Your task to perform on an android device: delete location history Image 0: 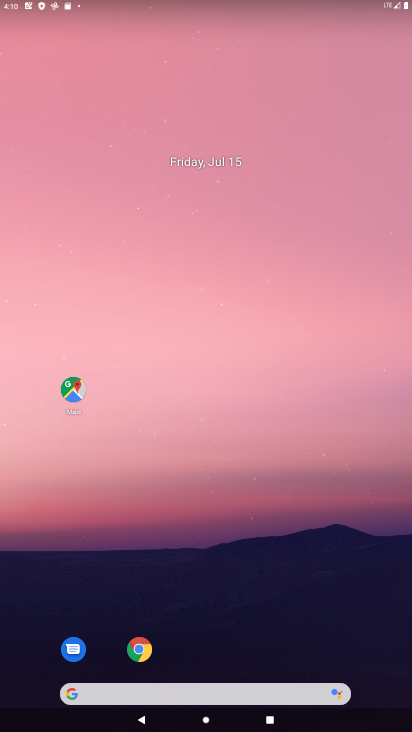
Step 0: drag from (299, 609) to (216, 171)
Your task to perform on an android device: delete location history Image 1: 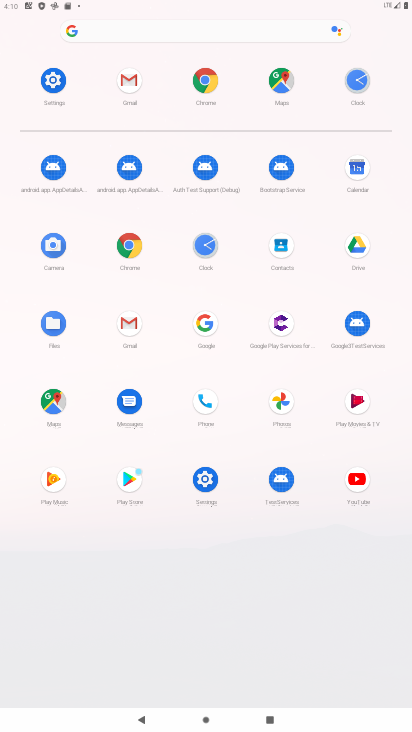
Step 1: click (286, 82)
Your task to perform on an android device: delete location history Image 2: 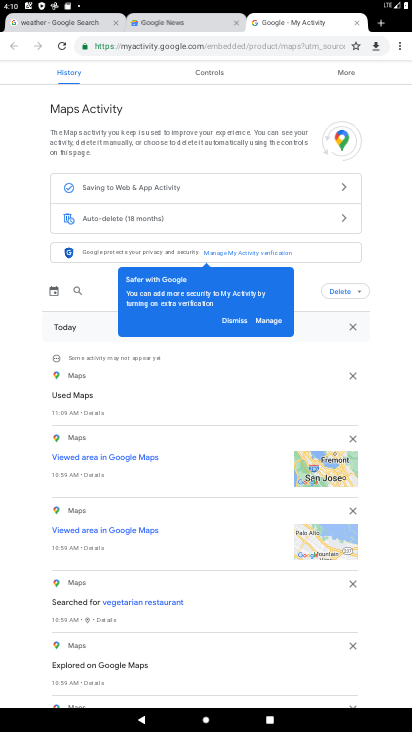
Step 2: click (361, 284)
Your task to perform on an android device: delete location history Image 3: 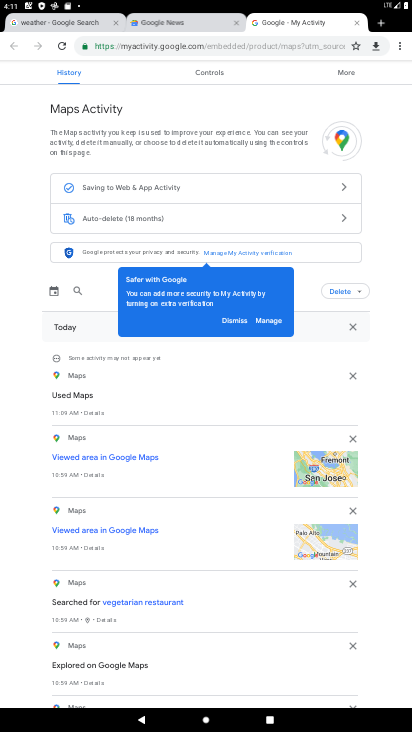
Step 3: click (244, 328)
Your task to perform on an android device: delete location history Image 4: 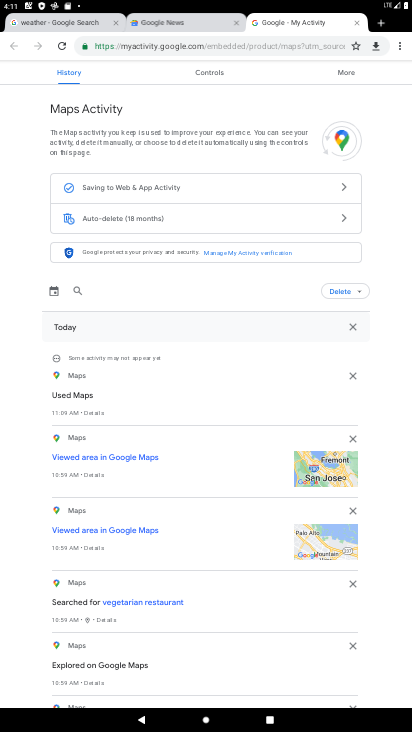
Step 4: click (342, 294)
Your task to perform on an android device: delete location history Image 5: 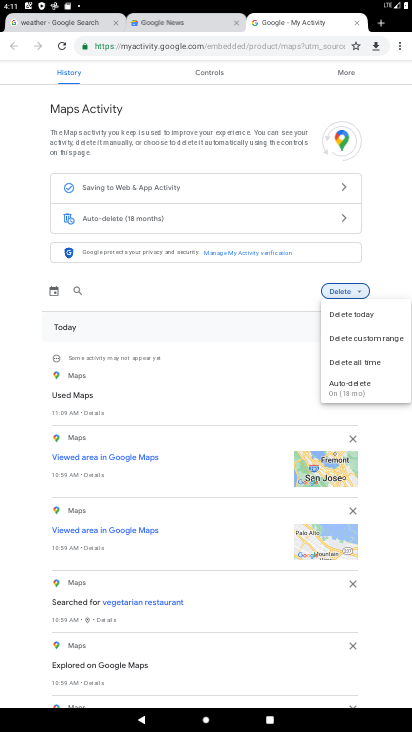
Step 5: click (341, 360)
Your task to perform on an android device: delete location history Image 6: 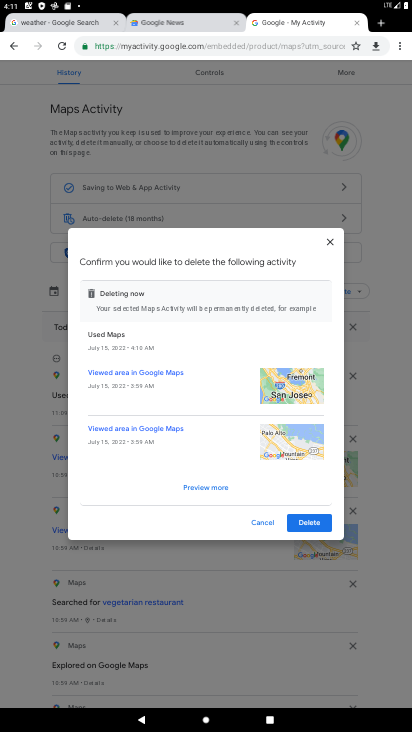
Step 6: click (313, 525)
Your task to perform on an android device: delete location history Image 7: 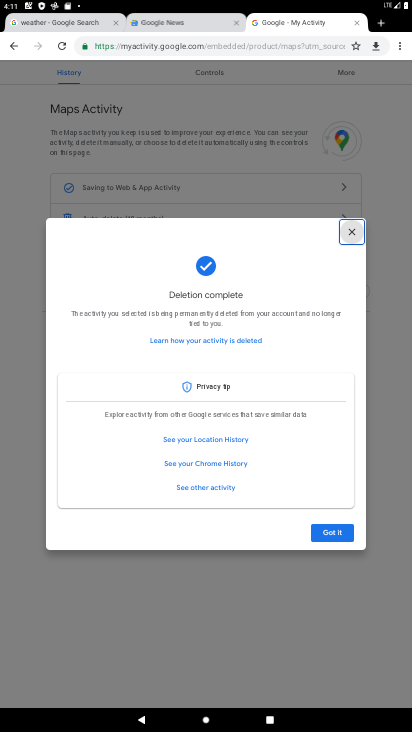
Step 7: click (313, 525)
Your task to perform on an android device: delete location history Image 8: 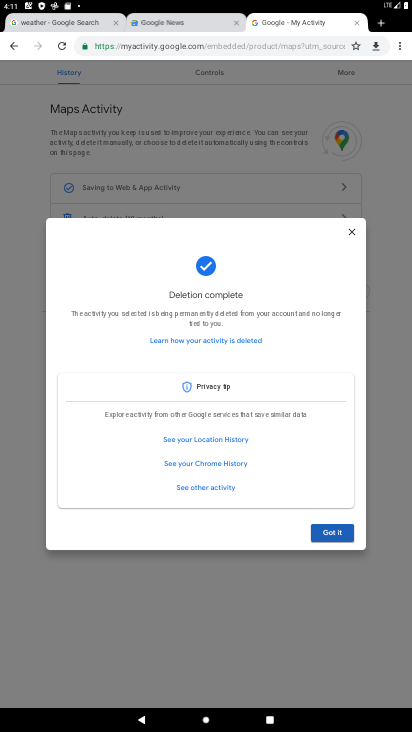
Step 8: task complete